Your task to perform on an android device: Open Chrome and go to settings Image 0: 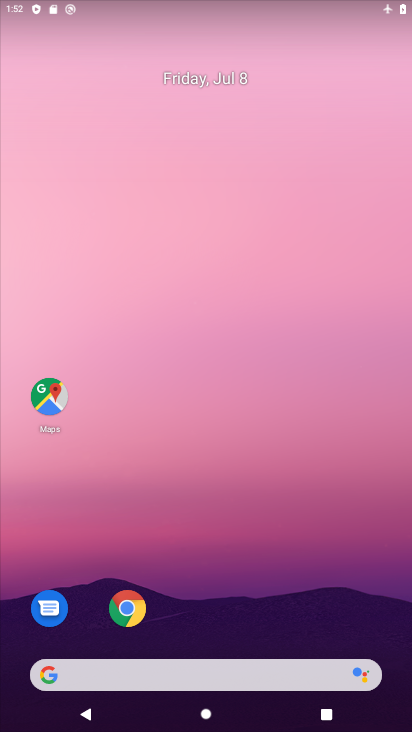
Step 0: click (128, 603)
Your task to perform on an android device: Open Chrome and go to settings Image 1: 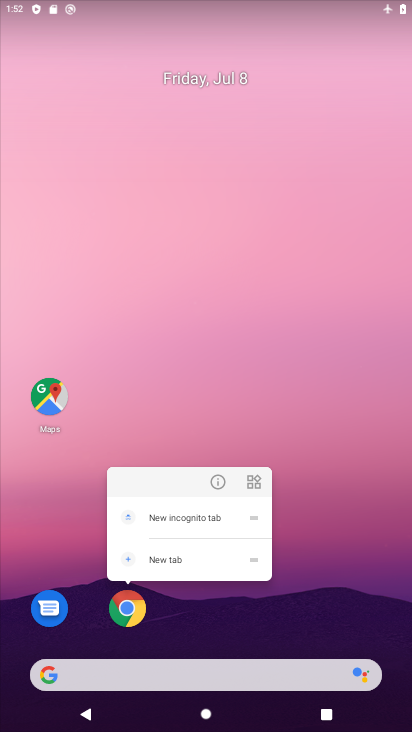
Step 1: click (123, 607)
Your task to perform on an android device: Open Chrome and go to settings Image 2: 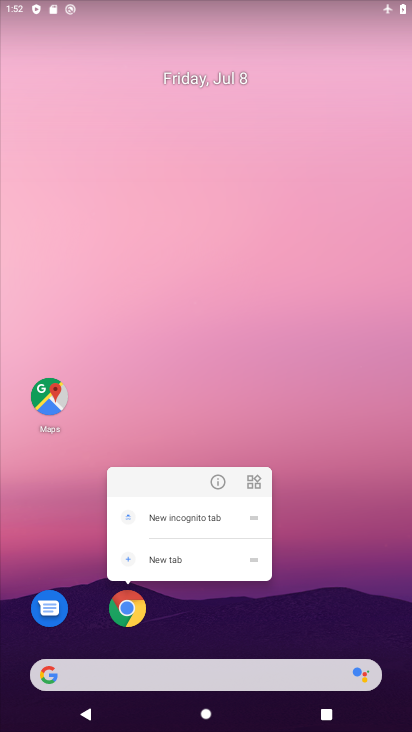
Step 2: click (135, 606)
Your task to perform on an android device: Open Chrome and go to settings Image 3: 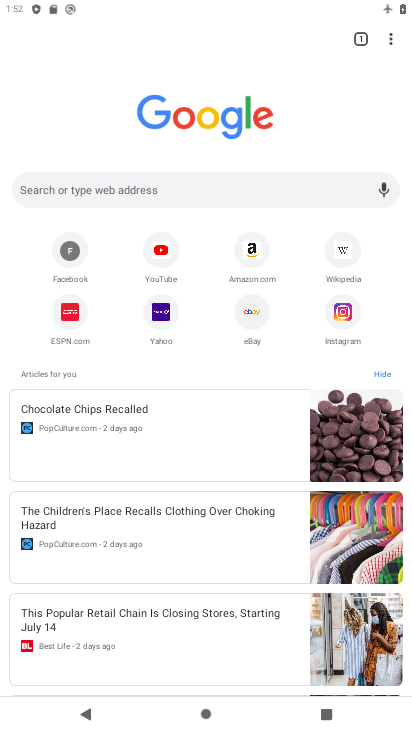
Step 3: click (394, 35)
Your task to perform on an android device: Open Chrome and go to settings Image 4: 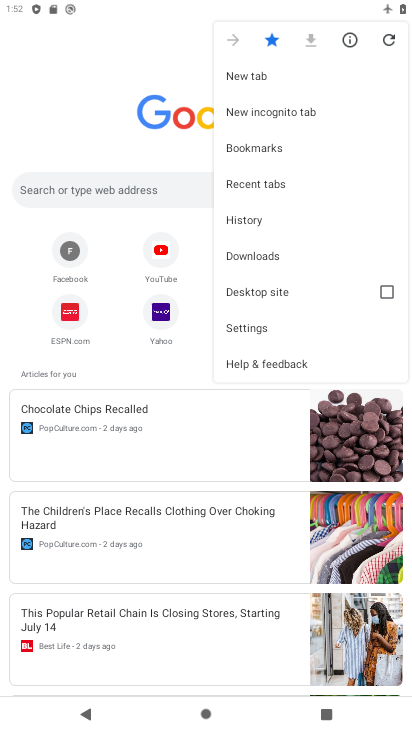
Step 4: click (260, 318)
Your task to perform on an android device: Open Chrome and go to settings Image 5: 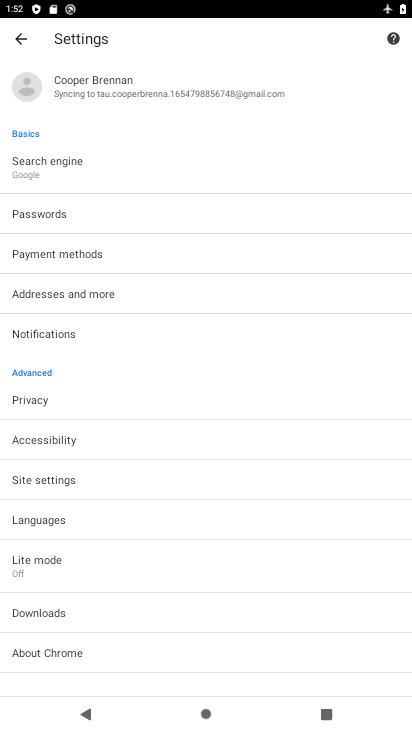
Step 5: task complete